Your task to perform on an android device: Turn on the flashlight Image 0: 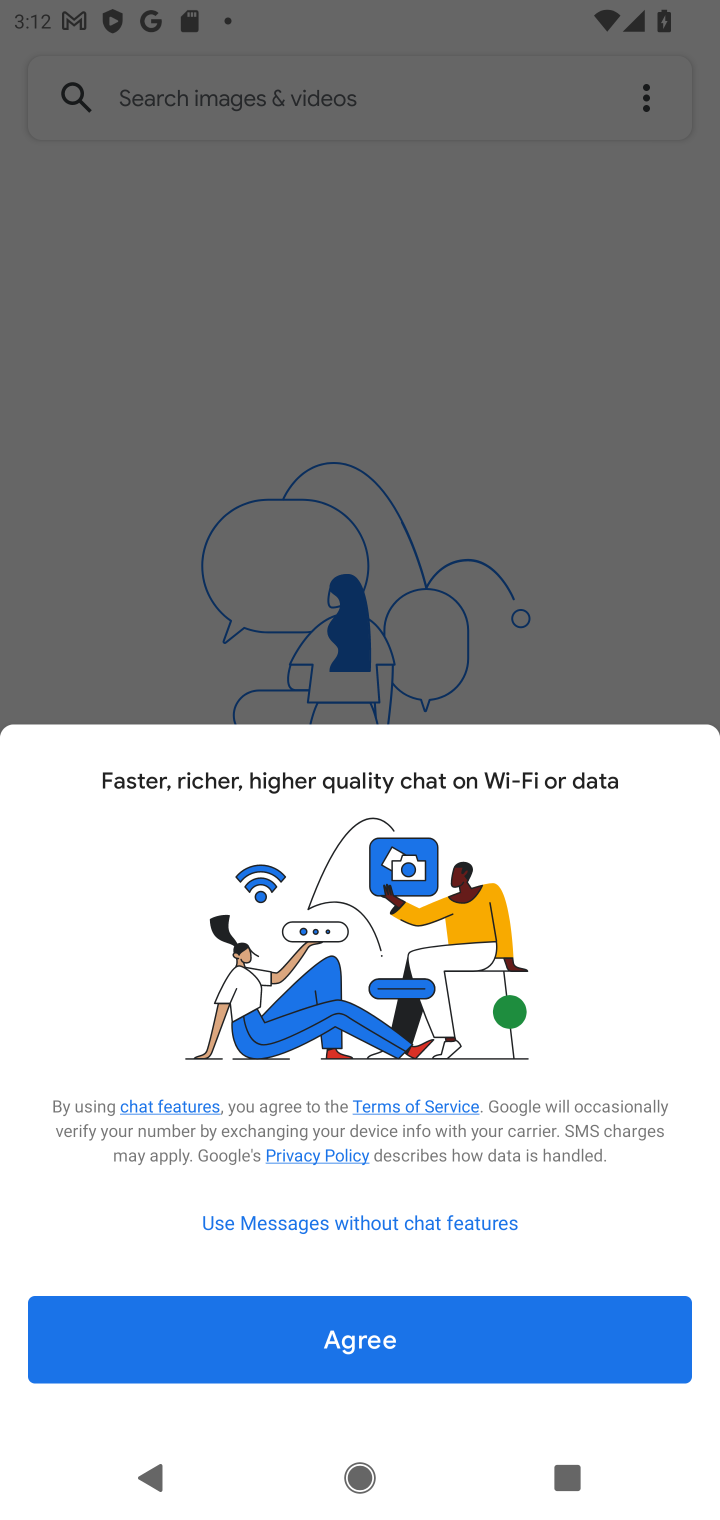
Step 0: press home button
Your task to perform on an android device: Turn on the flashlight Image 1: 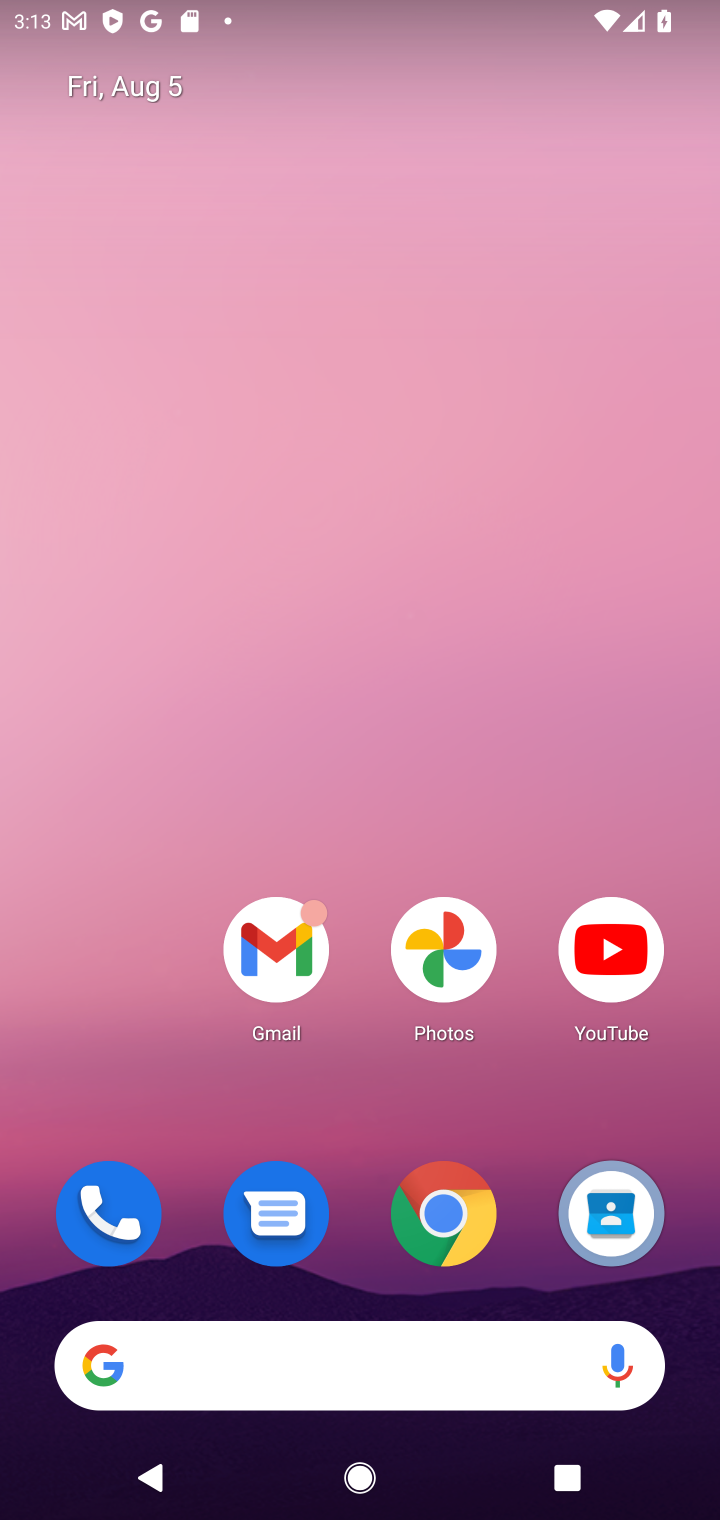
Step 1: drag from (357, 1270) to (304, 31)
Your task to perform on an android device: Turn on the flashlight Image 2: 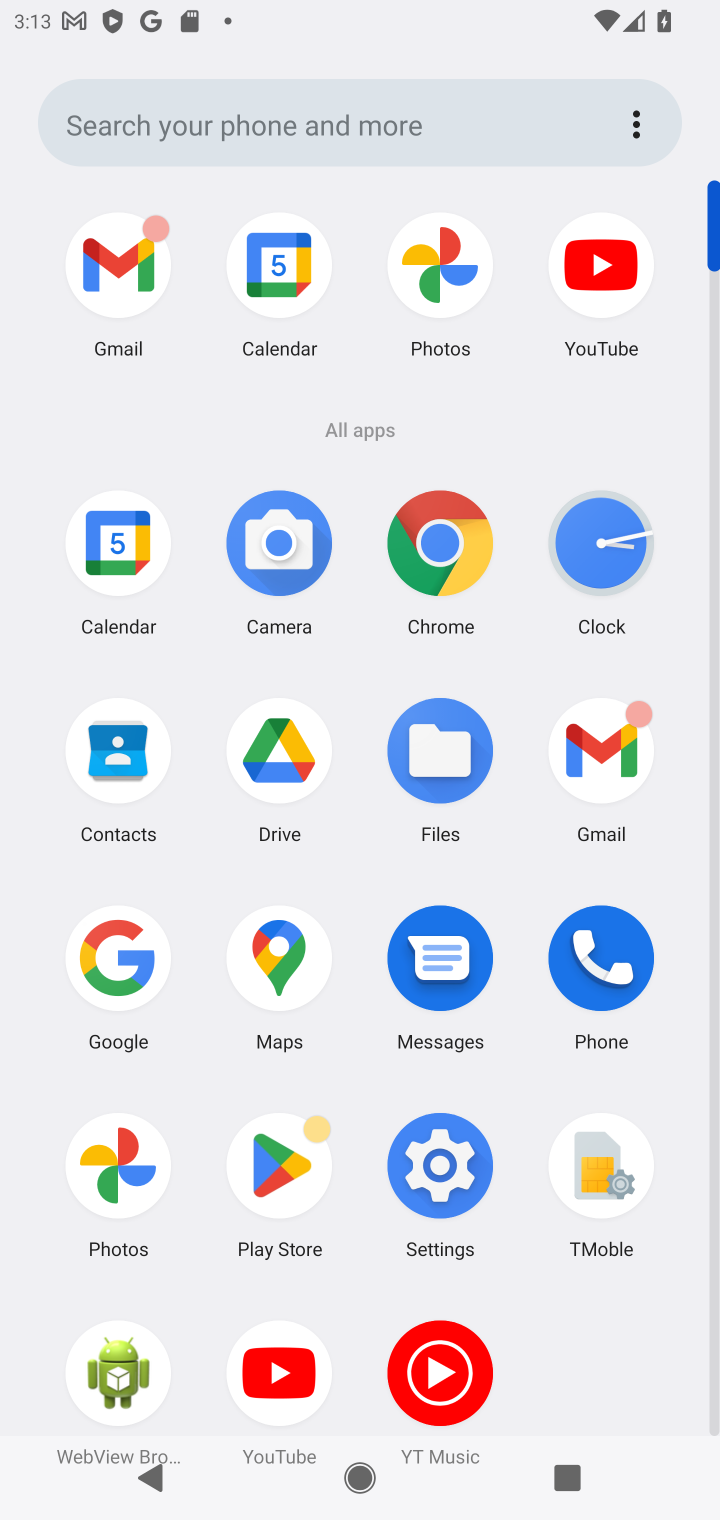
Step 2: click (439, 1204)
Your task to perform on an android device: Turn on the flashlight Image 3: 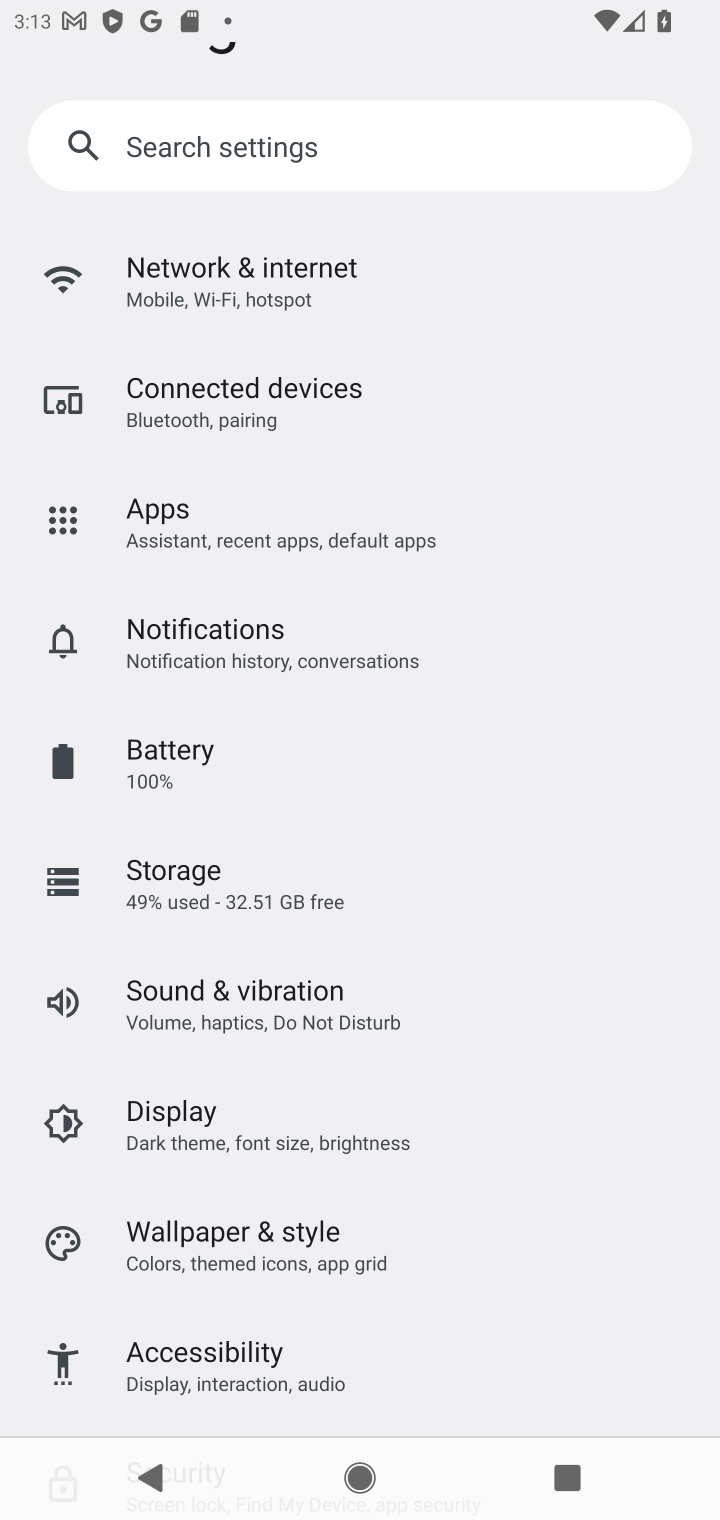
Step 3: task complete